Your task to perform on an android device: Open calendar and show me the fourth week of next month Image 0: 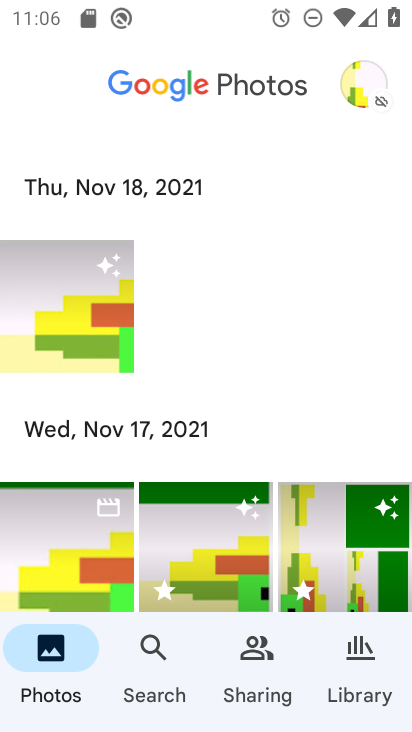
Step 0: press home button
Your task to perform on an android device: Open calendar and show me the fourth week of next month Image 1: 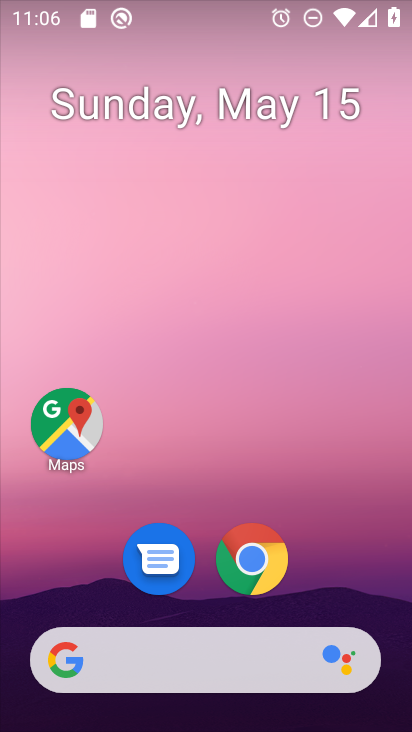
Step 1: drag from (355, 551) to (295, 121)
Your task to perform on an android device: Open calendar and show me the fourth week of next month Image 2: 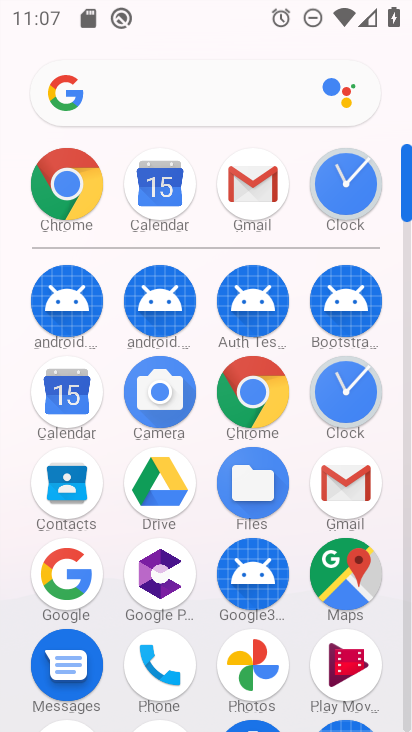
Step 2: click (53, 406)
Your task to perform on an android device: Open calendar and show me the fourth week of next month Image 3: 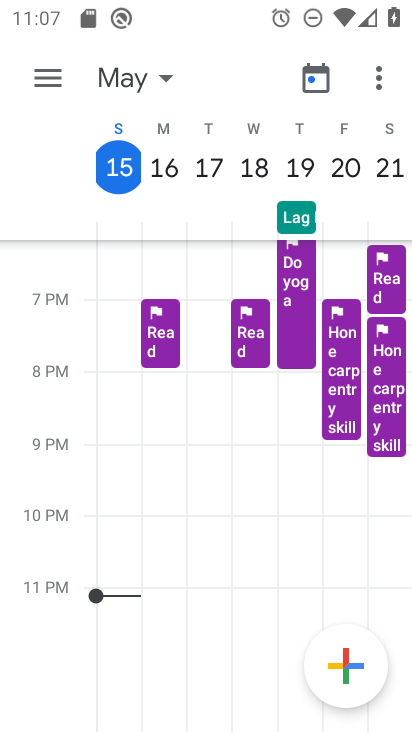
Step 3: click (159, 82)
Your task to perform on an android device: Open calendar and show me the fourth week of next month Image 4: 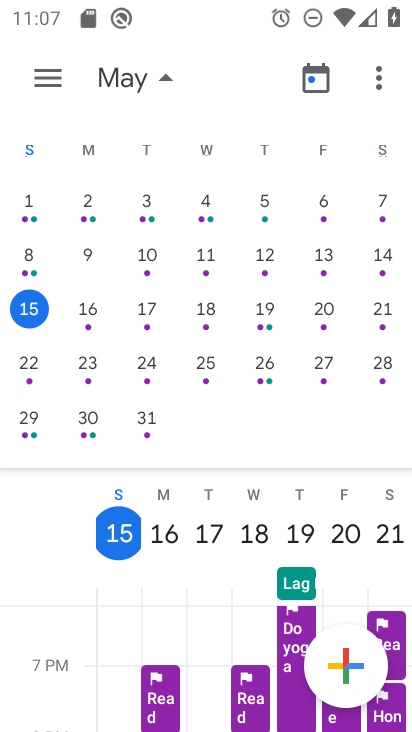
Step 4: drag from (320, 284) to (0, 294)
Your task to perform on an android device: Open calendar and show me the fourth week of next month Image 5: 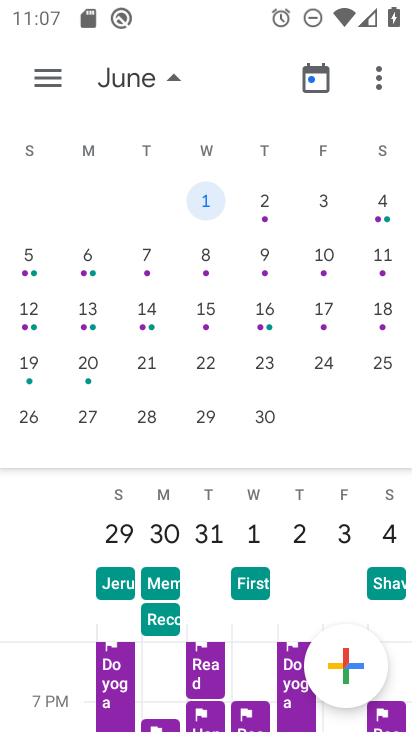
Step 5: click (205, 356)
Your task to perform on an android device: Open calendar and show me the fourth week of next month Image 6: 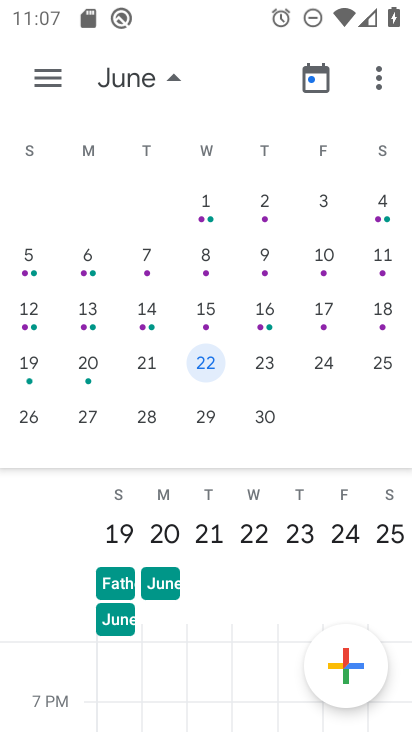
Step 6: task complete